Your task to perform on an android device: Open eBay Image 0: 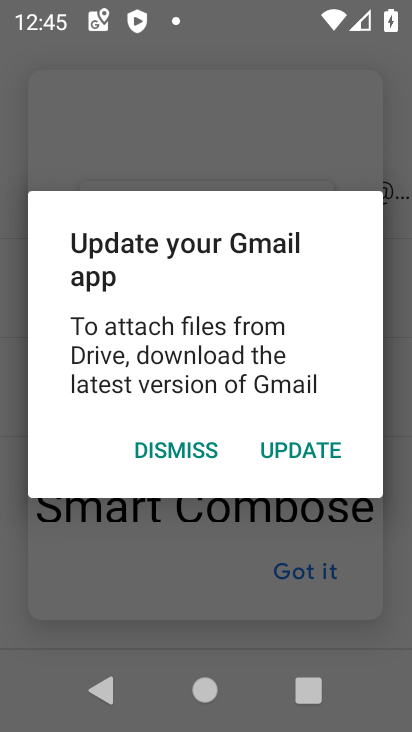
Step 0: click (177, 439)
Your task to perform on an android device: Open eBay Image 1: 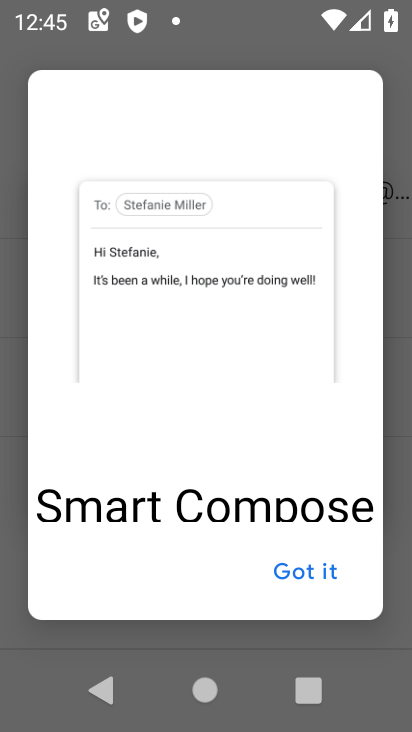
Step 1: press back button
Your task to perform on an android device: Open eBay Image 2: 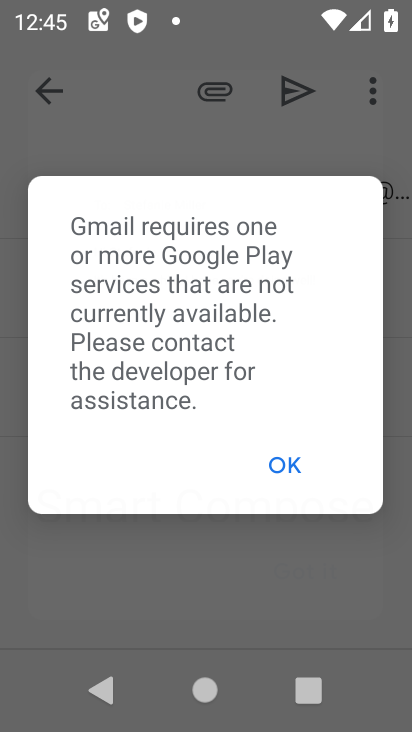
Step 2: press back button
Your task to perform on an android device: Open eBay Image 3: 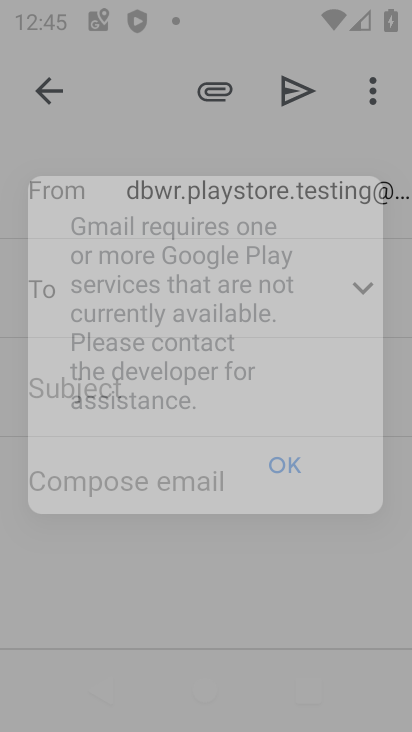
Step 3: press back button
Your task to perform on an android device: Open eBay Image 4: 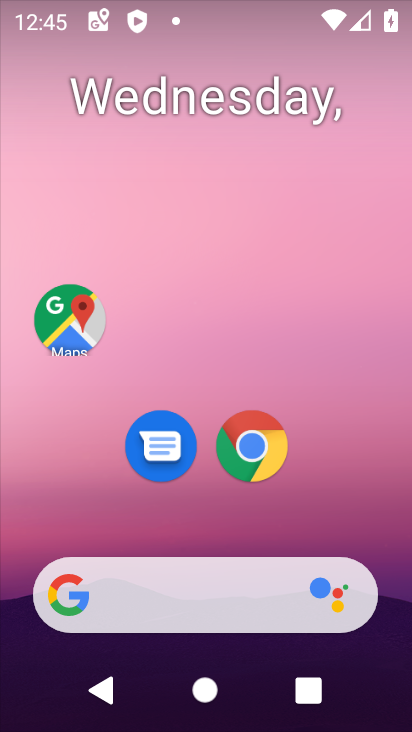
Step 4: drag from (374, 654) to (339, 10)
Your task to perform on an android device: Open eBay Image 5: 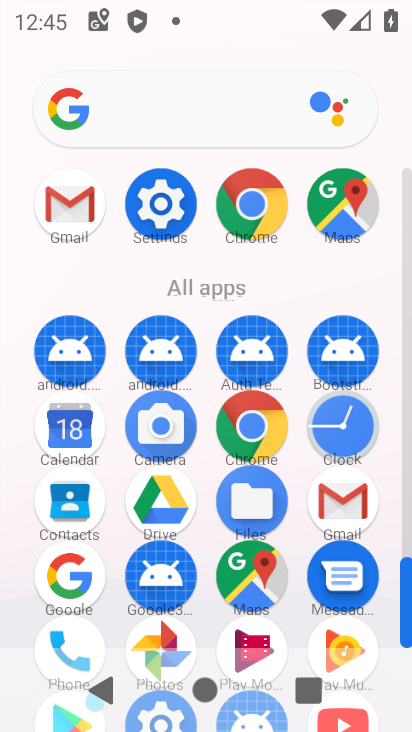
Step 5: click (237, 209)
Your task to perform on an android device: Open eBay Image 6: 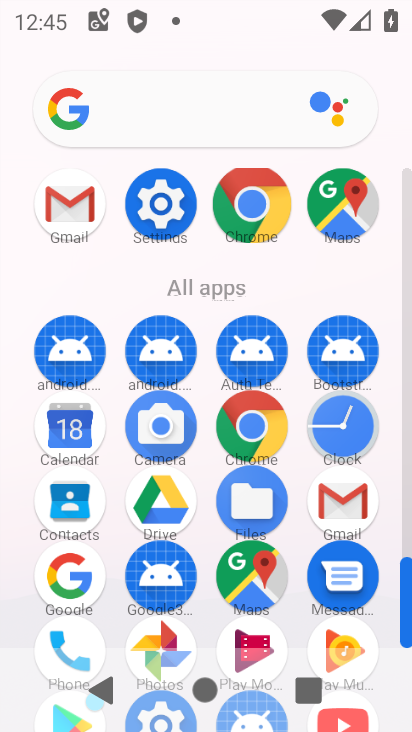
Step 6: click (240, 210)
Your task to perform on an android device: Open eBay Image 7: 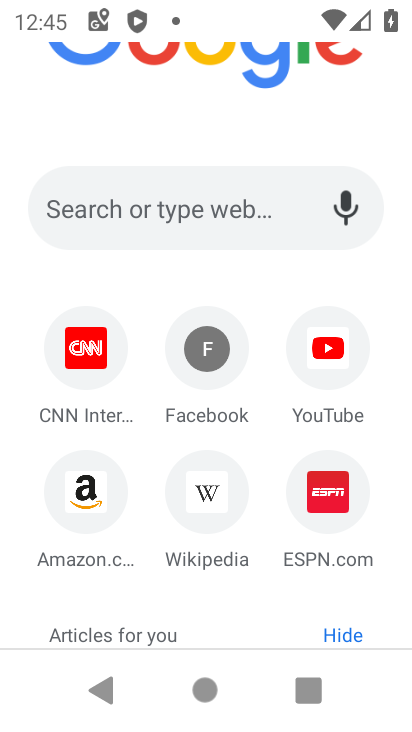
Step 7: drag from (283, 522) to (287, 253)
Your task to perform on an android device: Open eBay Image 8: 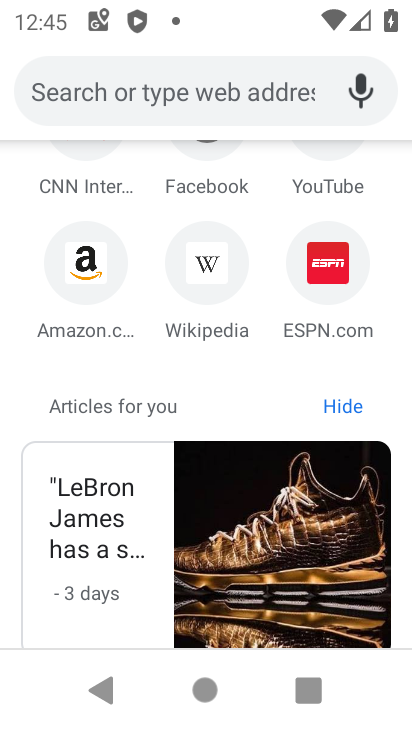
Step 8: drag from (210, 212) to (247, 532)
Your task to perform on an android device: Open eBay Image 9: 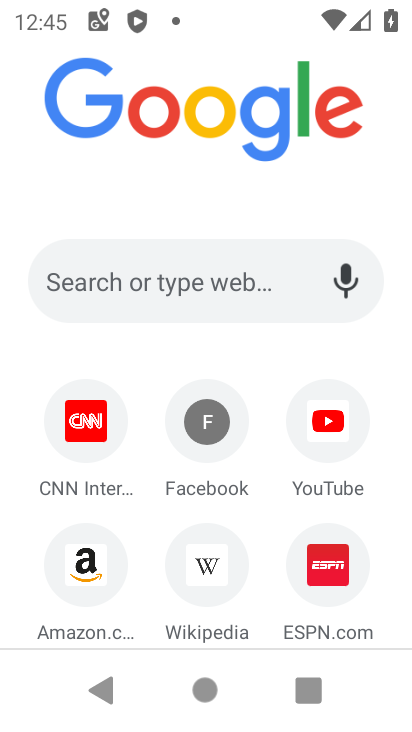
Step 9: drag from (223, 229) to (267, 521)
Your task to perform on an android device: Open eBay Image 10: 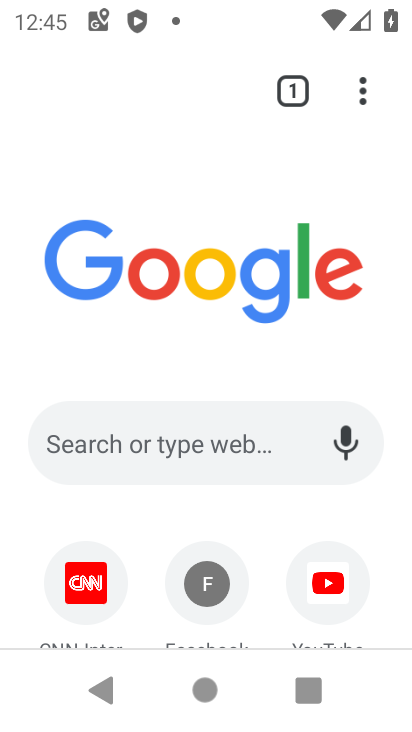
Step 10: click (68, 435)
Your task to perform on an android device: Open eBay Image 11: 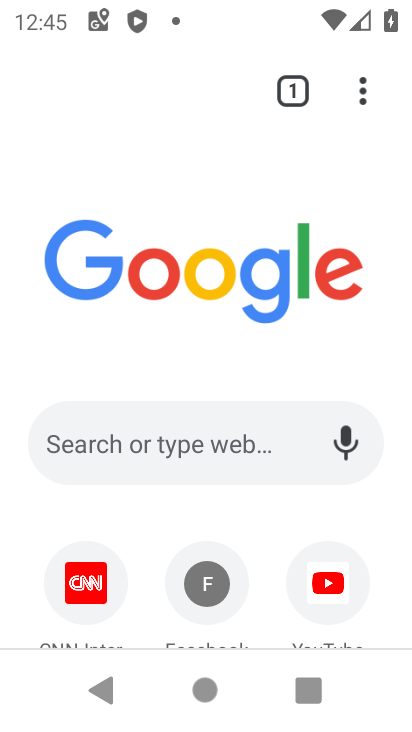
Step 11: click (68, 434)
Your task to perform on an android device: Open eBay Image 12: 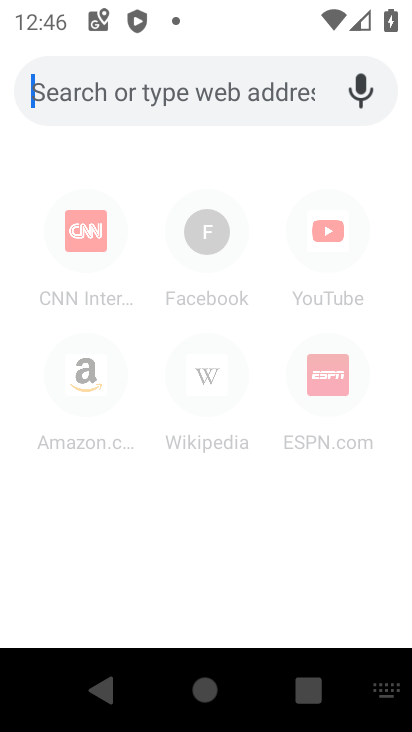
Step 12: type "www.ebay.com"
Your task to perform on an android device: Open eBay Image 13: 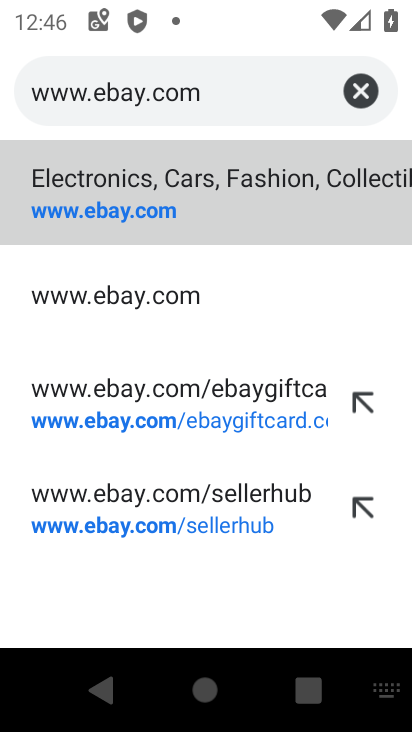
Step 13: click (110, 297)
Your task to perform on an android device: Open eBay Image 14: 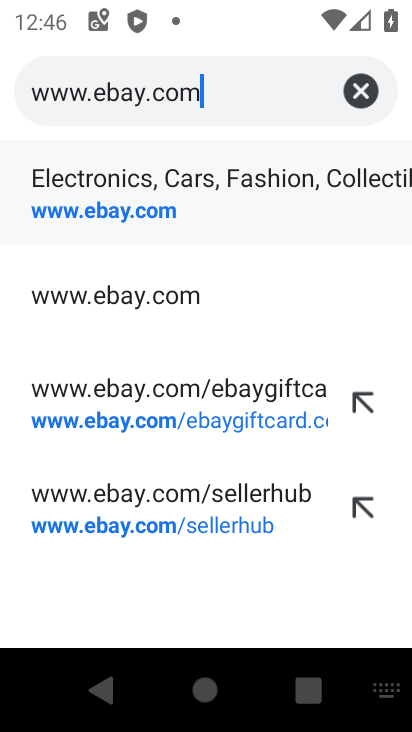
Step 14: click (110, 297)
Your task to perform on an android device: Open eBay Image 15: 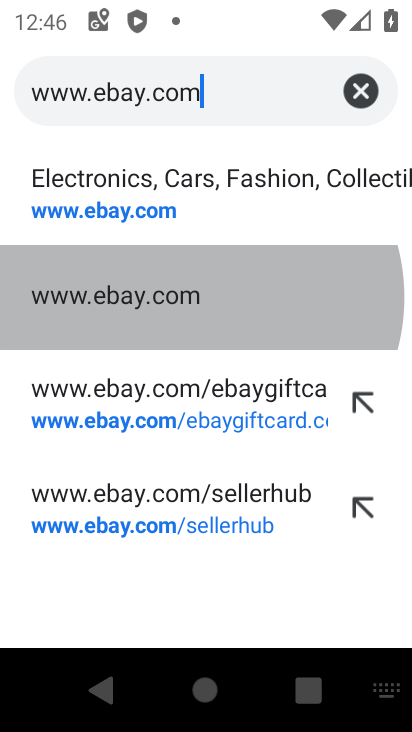
Step 15: click (109, 296)
Your task to perform on an android device: Open eBay Image 16: 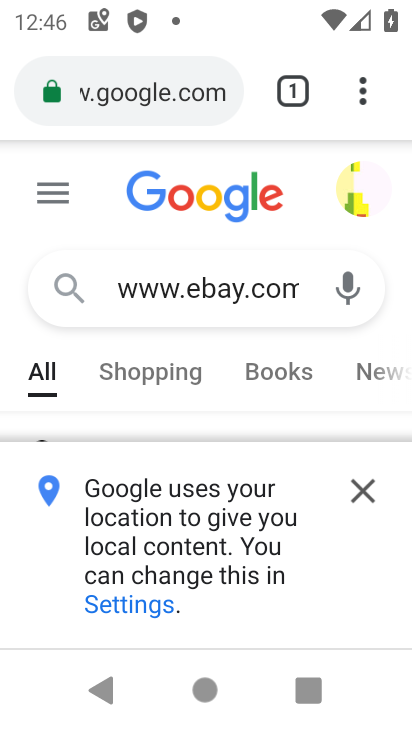
Step 16: task complete